Your task to perform on an android device: turn on javascript in the chrome app Image 0: 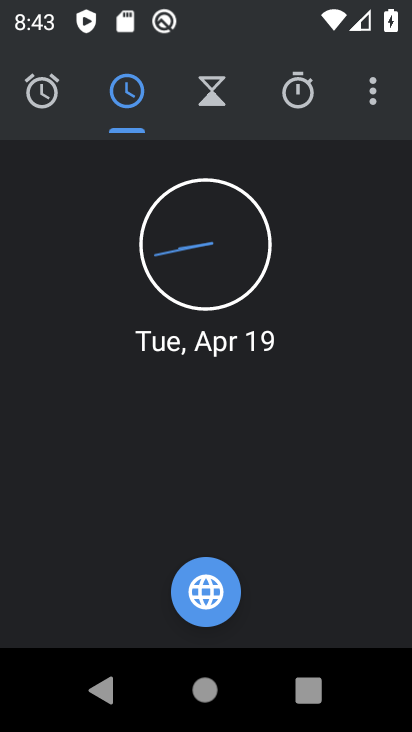
Step 0: press home button
Your task to perform on an android device: turn on javascript in the chrome app Image 1: 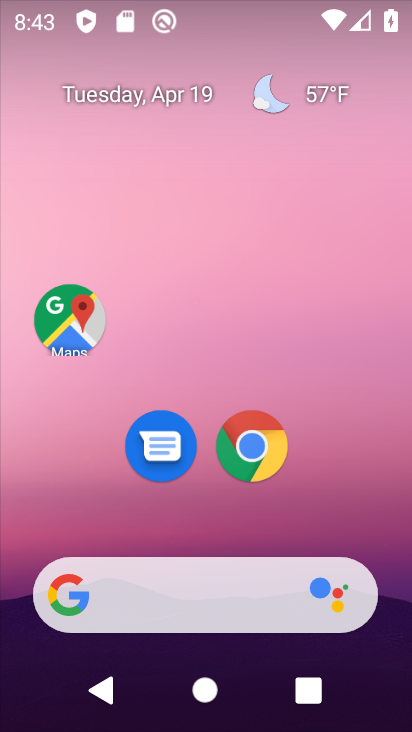
Step 1: click (254, 444)
Your task to perform on an android device: turn on javascript in the chrome app Image 2: 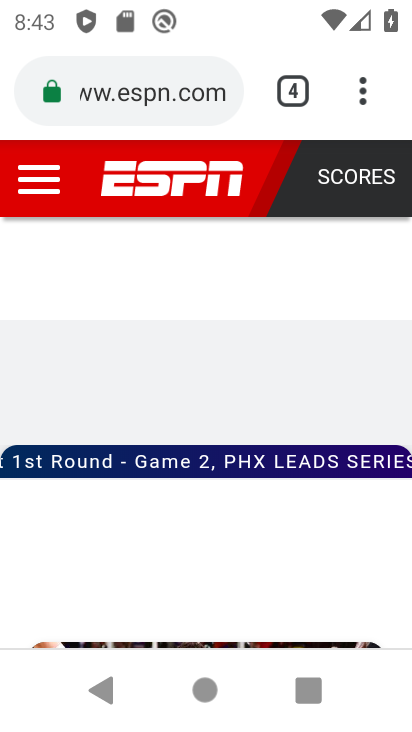
Step 2: click (365, 88)
Your task to perform on an android device: turn on javascript in the chrome app Image 3: 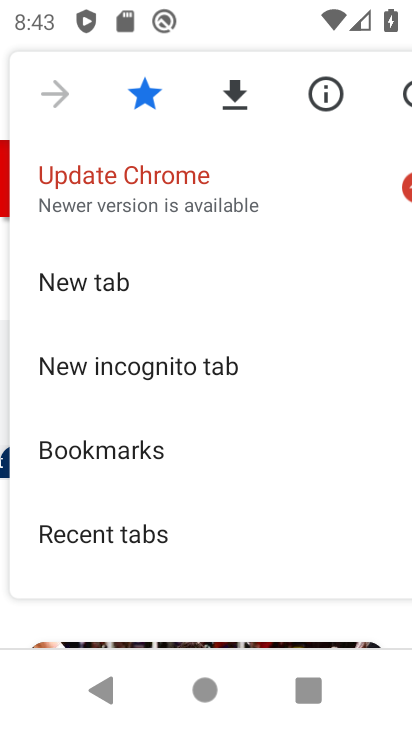
Step 3: drag from (165, 501) to (149, 157)
Your task to perform on an android device: turn on javascript in the chrome app Image 4: 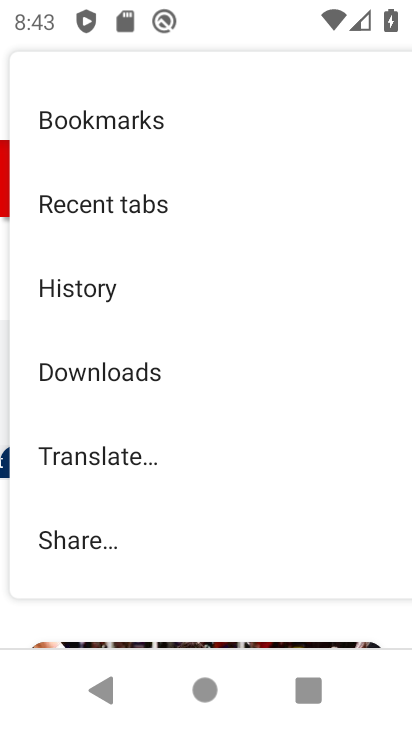
Step 4: drag from (94, 551) to (111, 211)
Your task to perform on an android device: turn on javascript in the chrome app Image 5: 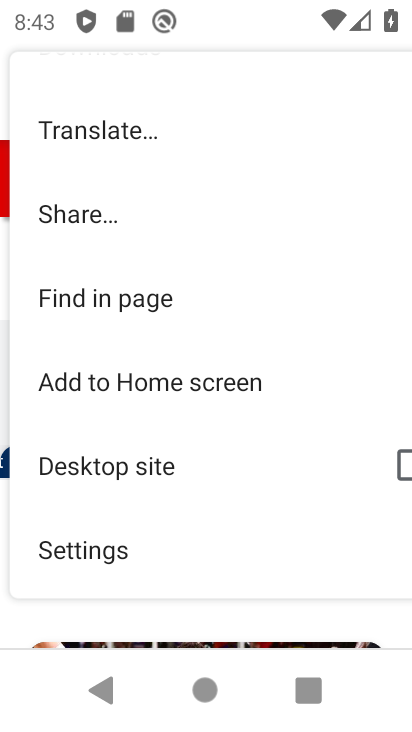
Step 5: click (88, 551)
Your task to perform on an android device: turn on javascript in the chrome app Image 6: 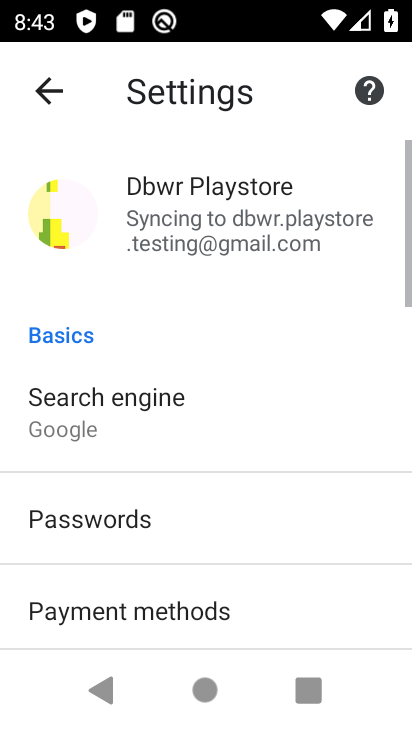
Step 6: drag from (105, 548) to (134, 128)
Your task to perform on an android device: turn on javascript in the chrome app Image 7: 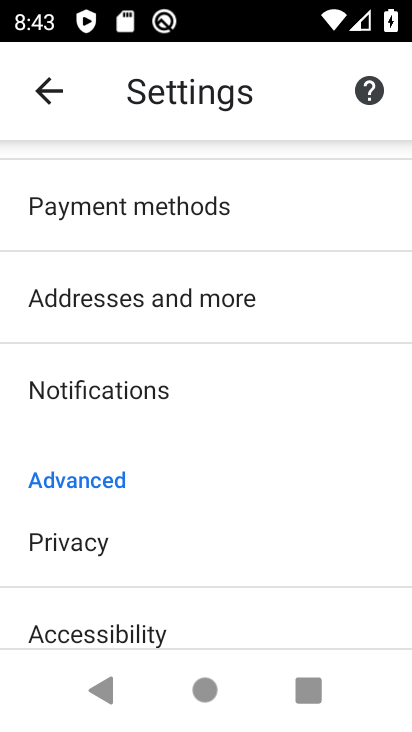
Step 7: drag from (103, 567) to (93, 288)
Your task to perform on an android device: turn on javascript in the chrome app Image 8: 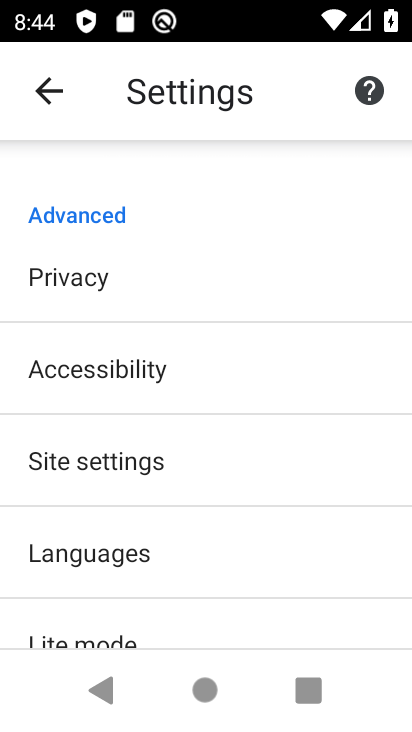
Step 8: click (62, 459)
Your task to perform on an android device: turn on javascript in the chrome app Image 9: 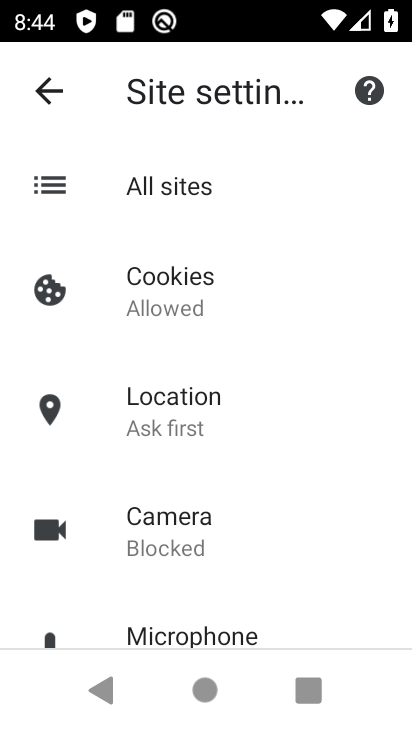
Step 9: drag from (180, 581) to (192, 266)
Your task to perform on an android device: turn on javascript in the chrome app Image 10: 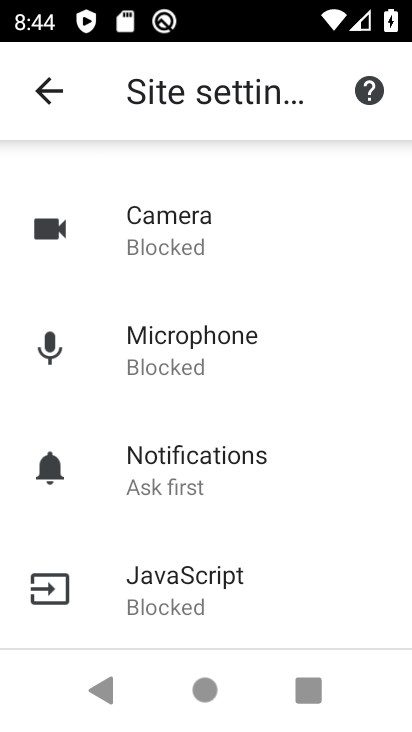
Step 10: click (162, 600)
Your task to perform on an android device: turn on javascript in the chrome app Image 11: 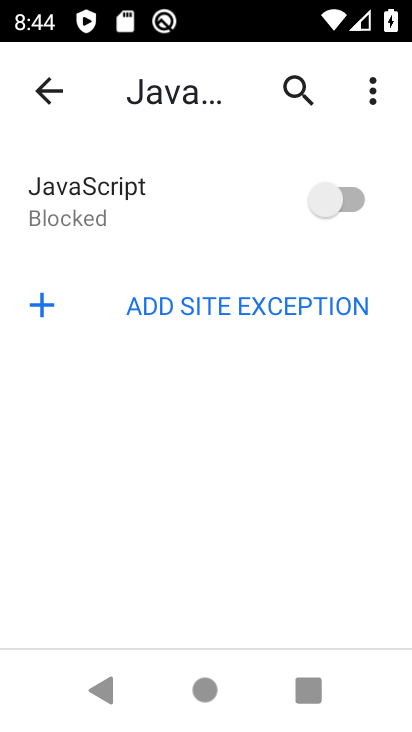
Step 11: click (335, 203)
Your task to perform on an android device: turn on javascript in the chrome app Image 12: 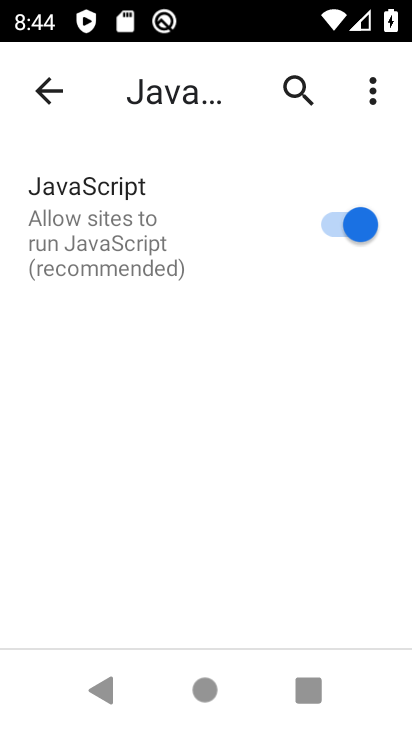
Step 12: task complete